Your task to perform on an android device: turn off priority inbox in the gmail app Image 0: 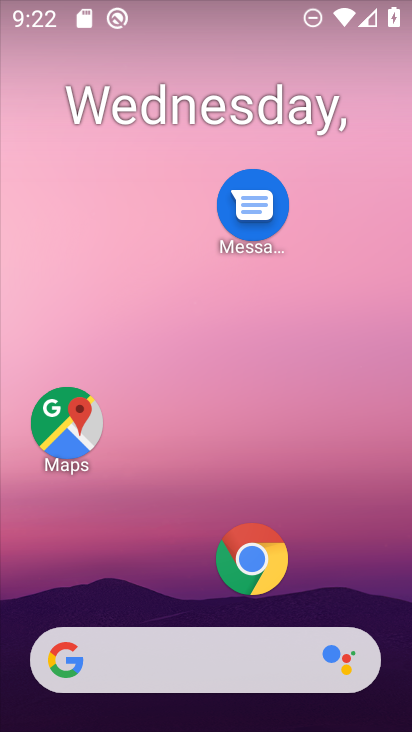
Step 0: drag from (148, 649) to (195, 178)
Your task to perform on an android device: turn off priority inbox in the gmail app Image 1: 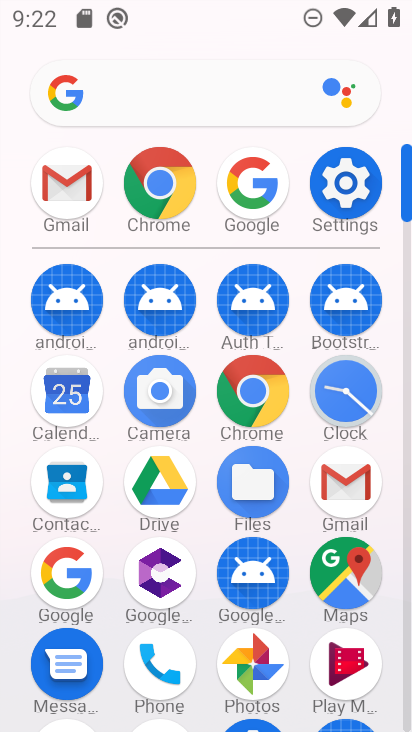
Step 1: click (349, 482)
Your task to perform on an android device: turn off priority inbox in the gmail app Image 2: 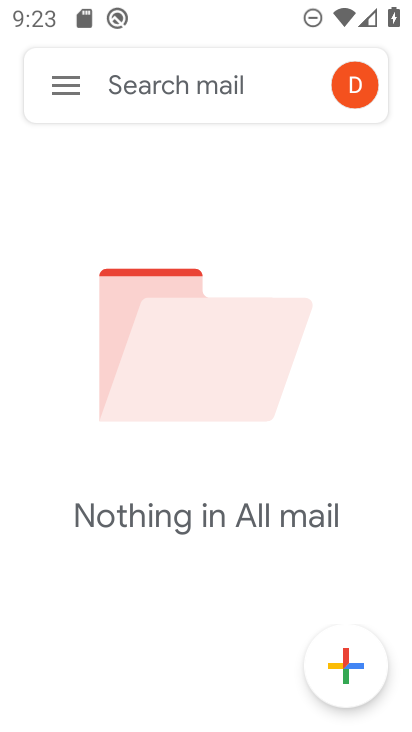
Step 2: click (75, 90)
Your task to perform on an android device: turn off priority inbox in the gmail app Image 3: 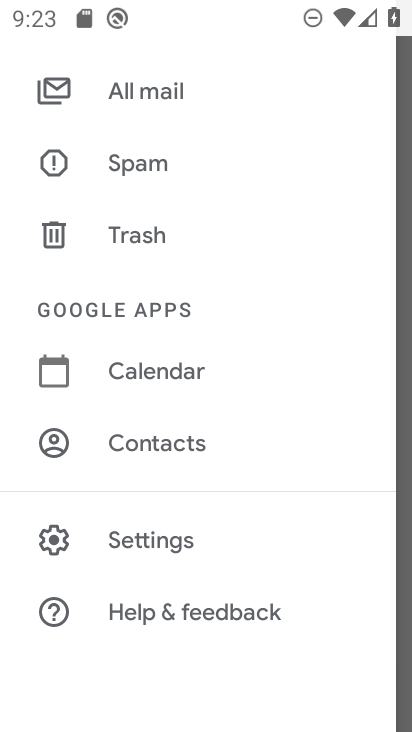
Step 3: click (117, 542)
Your task to perform on an android device: turn off priority inbox in the gmail app Image 4: 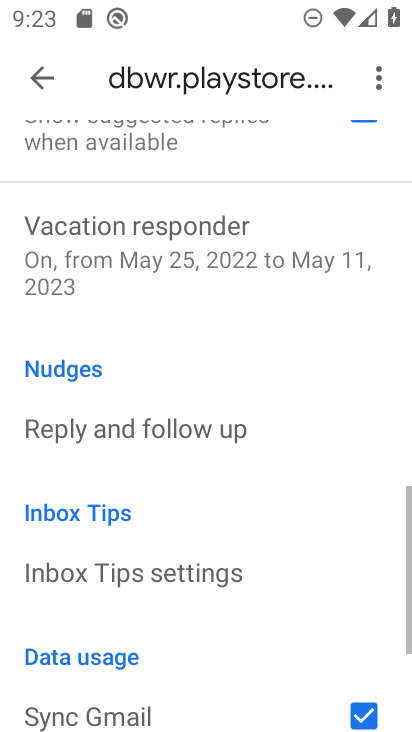
Step 4: drag from (92, 448) to (143, 100)
Your task to perform on an android device: turn off priority inbox in the gmail app Image 5: 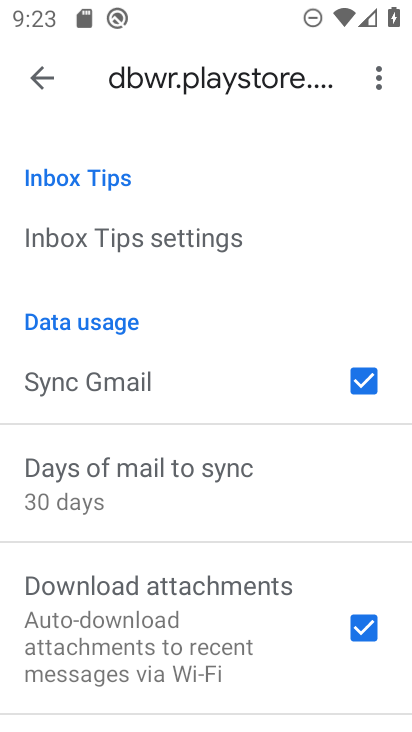
Step 5: drag from (155, 567) to (229, 254)
Your task to perform on an android device: turn off priority inbox in the gmail app Image 6: 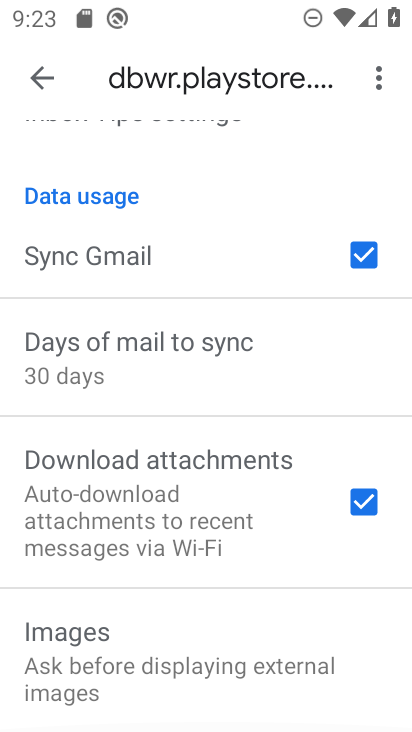
Step 6: drag from (230, 331) to (218, 659)
Your task to perform on an android device: turn off priority inbox in the gmail app Image 7: 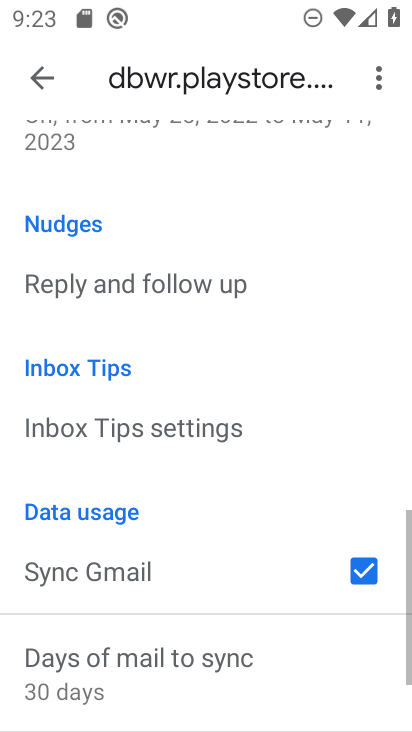
Step 7: drag from (204, 339) to (208, 642)
Your task to perform on an android device: turn off priority inbox in the gmail app Image 8: 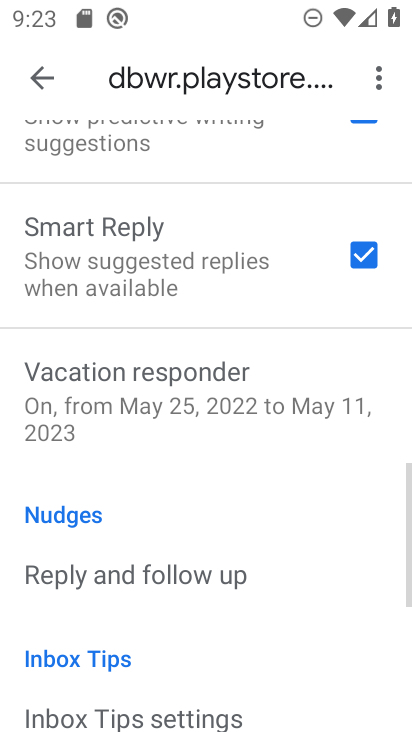
Step 8: drag from (208, 399) to (191, 673)
Your task to perform on an android device: turn off priority inbox in the gmail app Image 9: 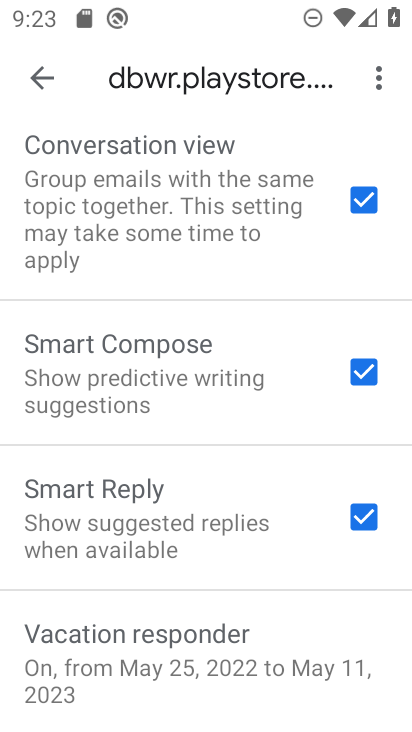
Step 9: drag from (202, 294) to (168, 636)
Your task to perform on an android device: turn off priority inbox in the gmail app Image 10: 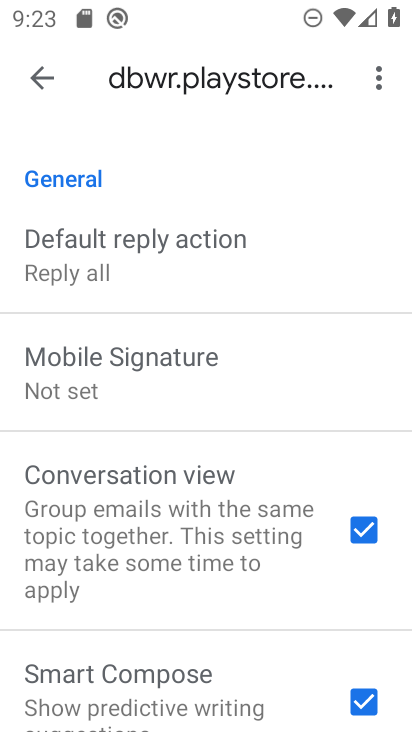
Step 10: drag from (179, 268) to (161, 701)
Your task to perform on an android device: turn off priority inbox in the gmail app Image 11: 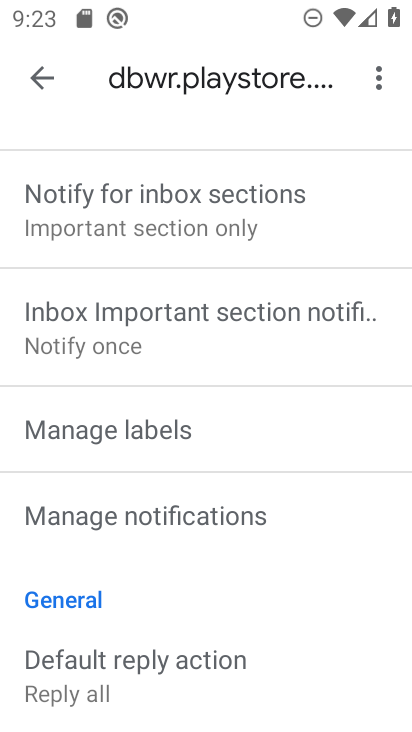
Step 11: drag from (144, 307) to (153, 659)
Your task to perform on an android device: turn off priority inbox in the gmail app Image 12: 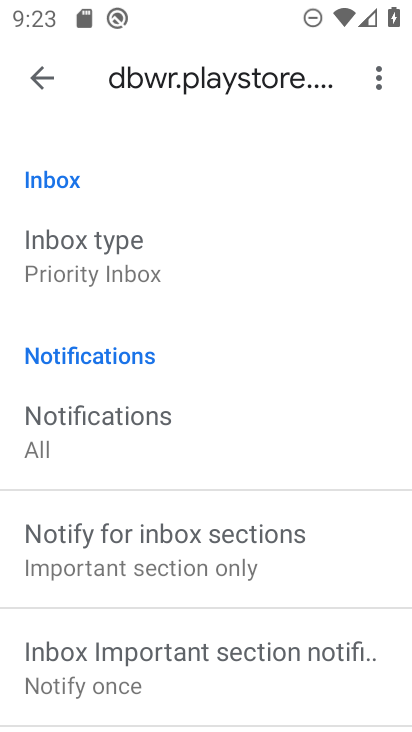
Step 12: click (170, 261)
Your task to perform on an android device: turn off priority inbox in the gmail app Image 13: 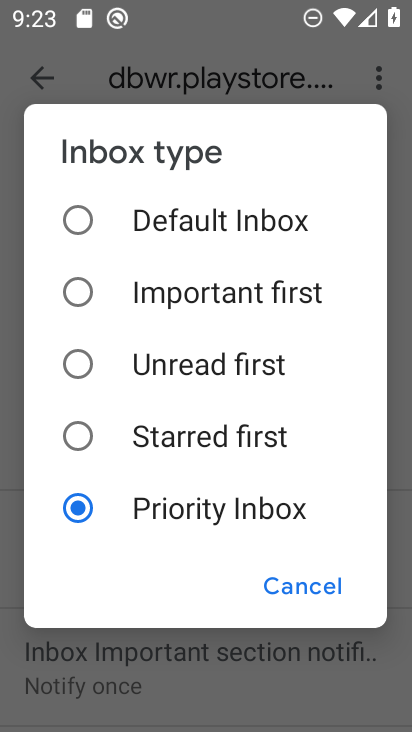
Step 13: click (80, 377)
Your task to perform on an android device: turn off priority inbox in the gmail app Image 14: 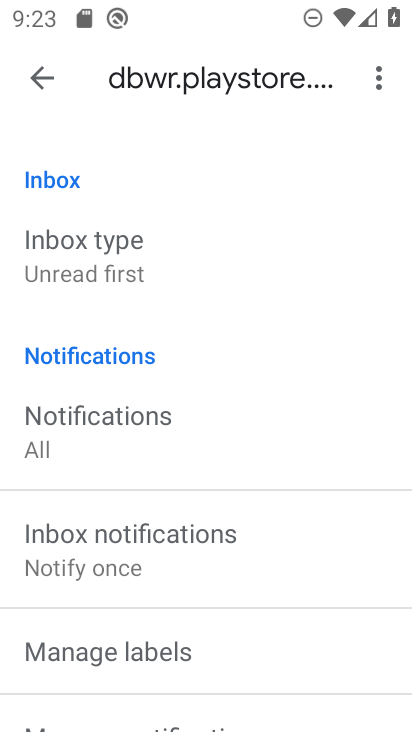
Step 14: task complete